Your task to perform on an android device: star an email in the gmail app Image 0: 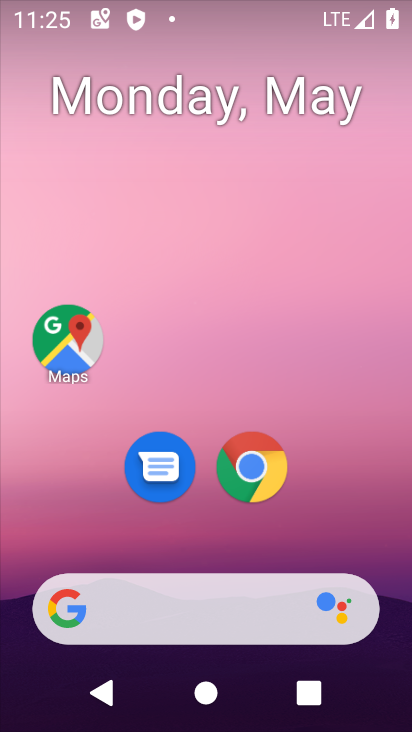
Step 0: drag from (400, 702) to (377, 171)
Your task to perform on an android device: star an email in the gmail app Image 1: 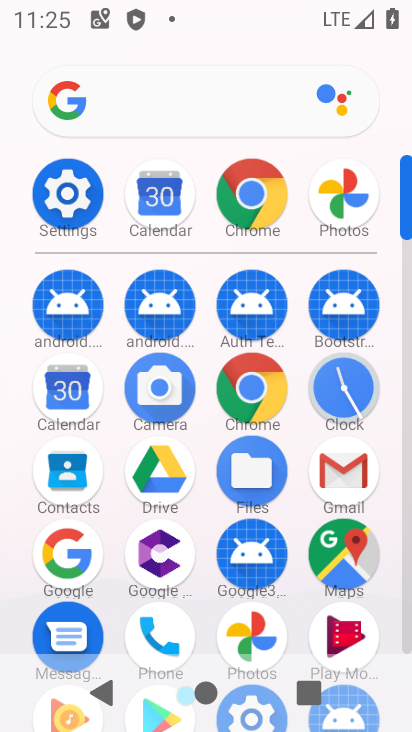
Step 1: click (331, 472)
Your task to perform on an android device: star an email in the gmail app Image 2: 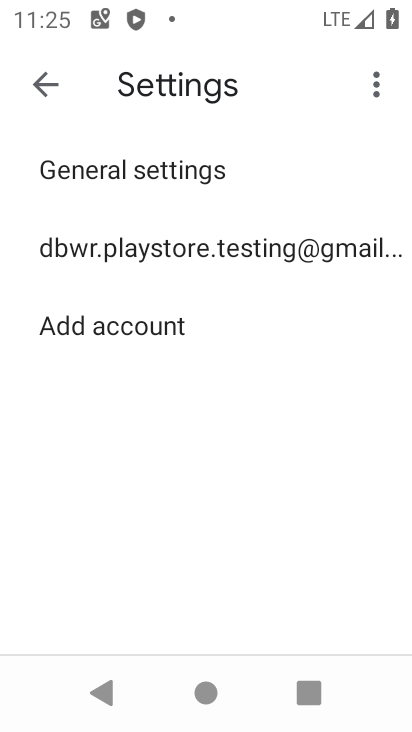
Step 2: click (49, 89)
Your task to perform on an android device: star an email in the gmail app Image 3: 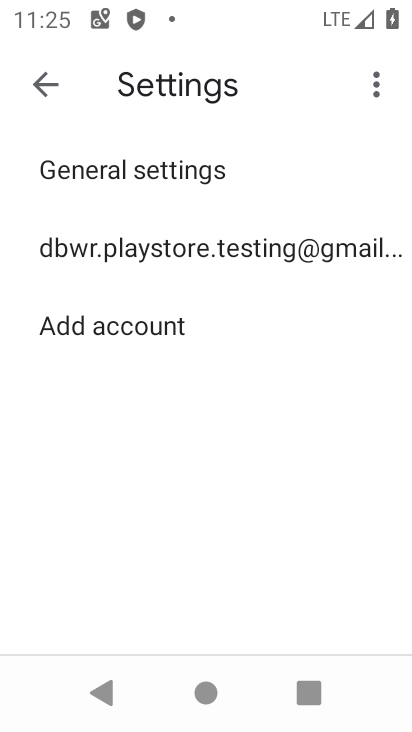
Step 3: click (32, 80)
Your task to perform on an android device: star an email in the gmail app Image 4: 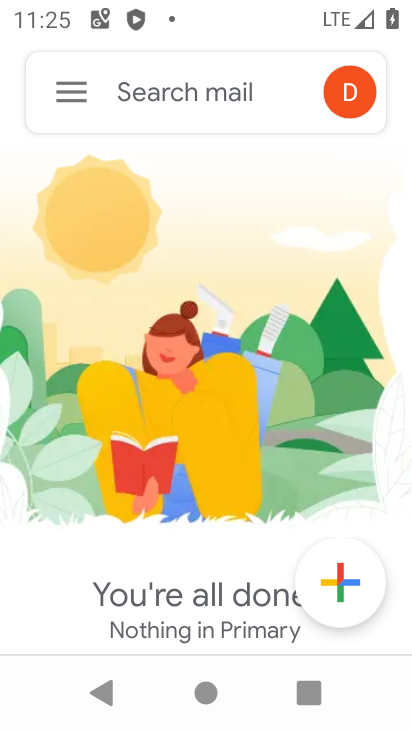
Step 4: click (63, 91)
Your task to perform on an android device: star an email in the gmail app Image 5: 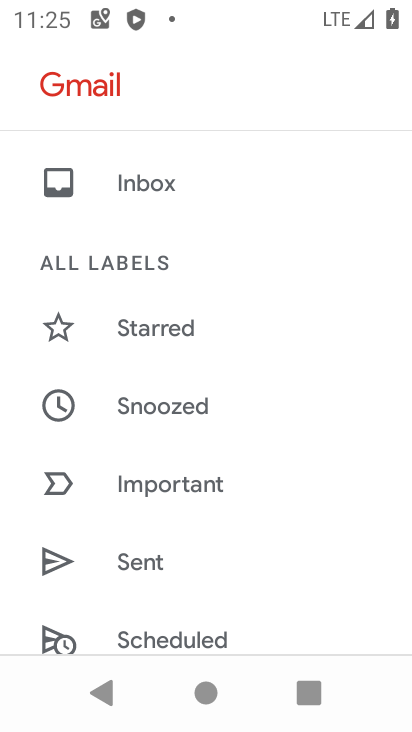
Step 5: click (124, 185)
Your task to perform on an android device: star an email in the gmail app Image 6: 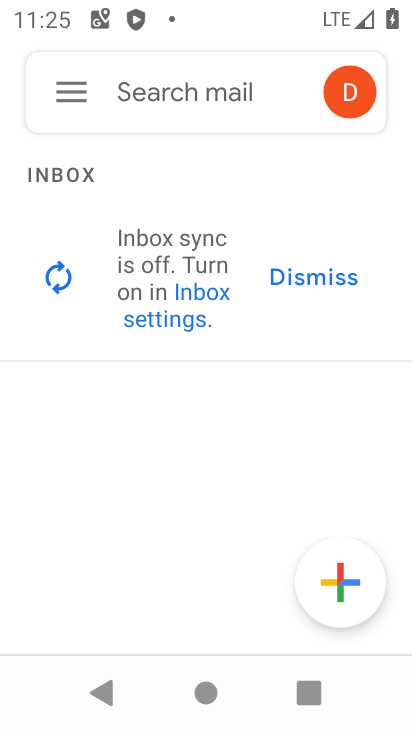
Step 6: task complete